Your task to perform on an android device: Go to Yahoo.com Image 0: 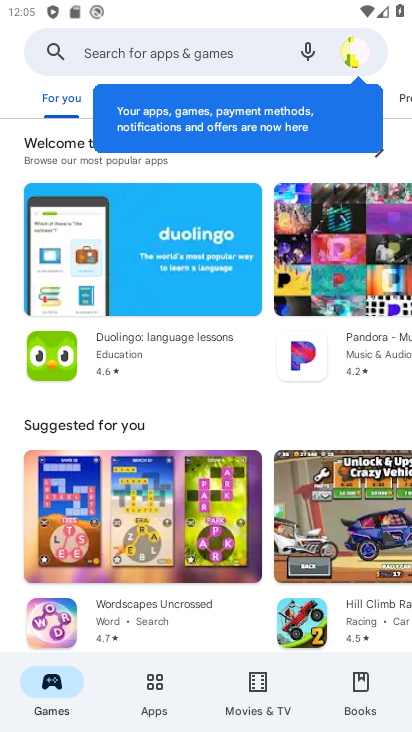
Step 0: press home button
Your task to perform on an android device: Go to Yahoo.com Image 1: 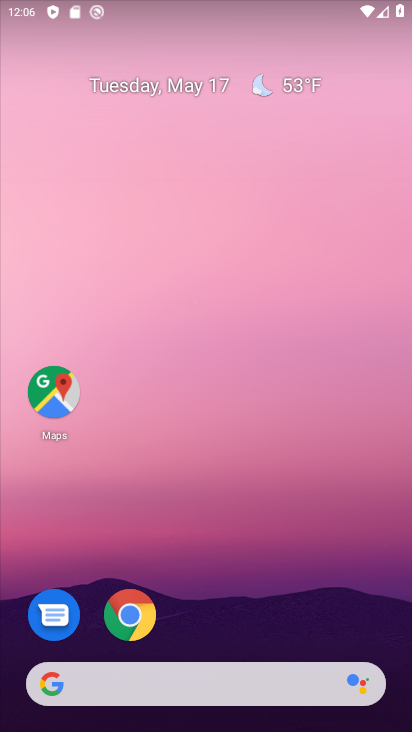
Step 1: click (238, 671)
Your task to perform on an android device: Go to Yahoo.com Image 2: 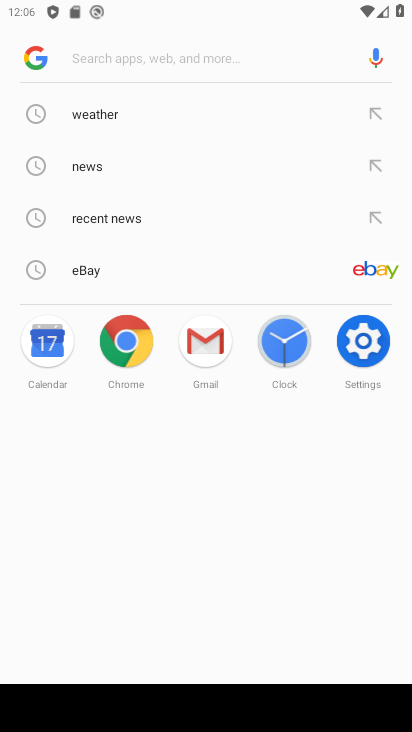
Step 2: type "yahoo.com"
Your task to perform on an android device: Go to Yahoo.com Image 3: 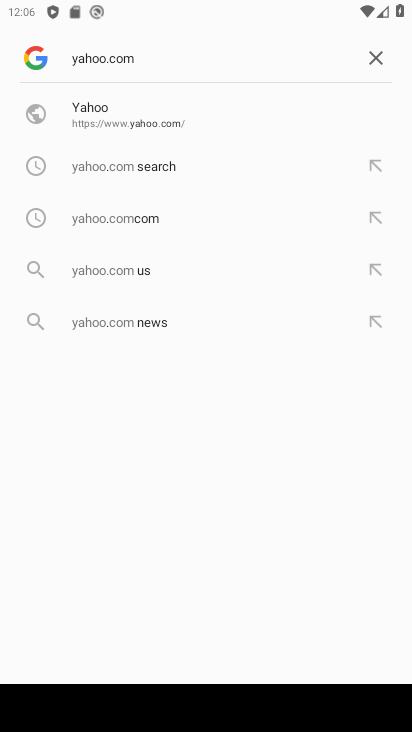
Step 3: click (210, 123)
Your task to perform on an android device: Go to Yahoo.com Image 4: 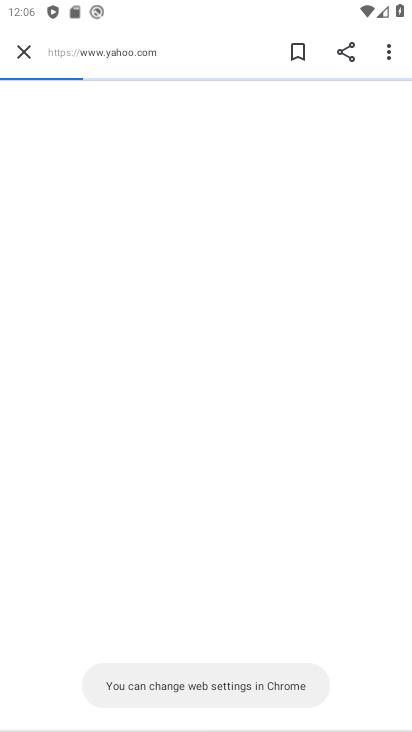
Step 4: task complete